Your task to perform on an android device: Go to sound settings Image 0: 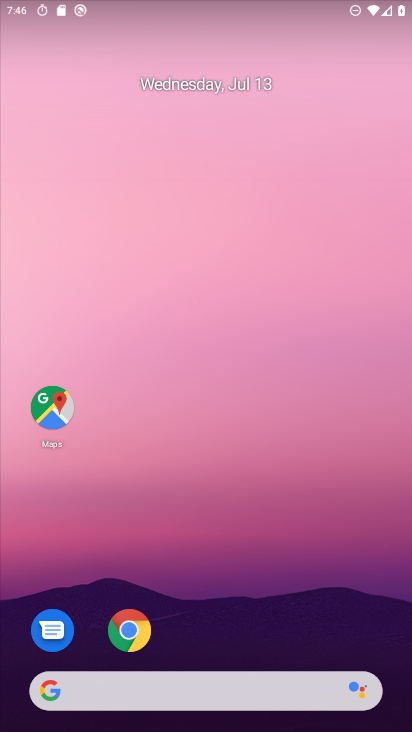
Step 0: drag from (389, 663) to (289, 27)
Your task to perform on an android device: Go to sound settings Image 1: 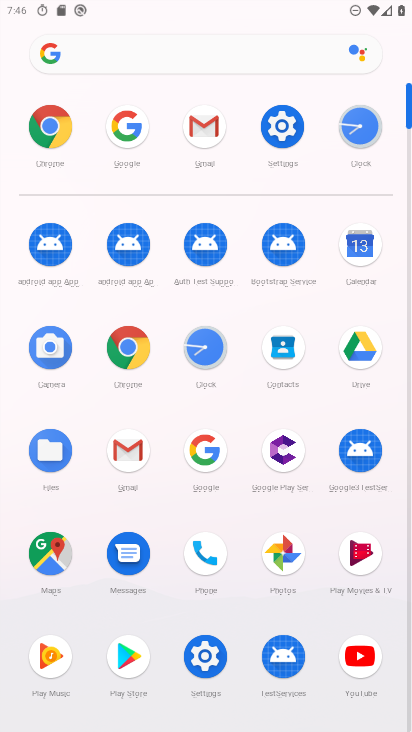
Step 1: click (276, 138)
Your task to perform on an android device: Go to sound settings Image 2: 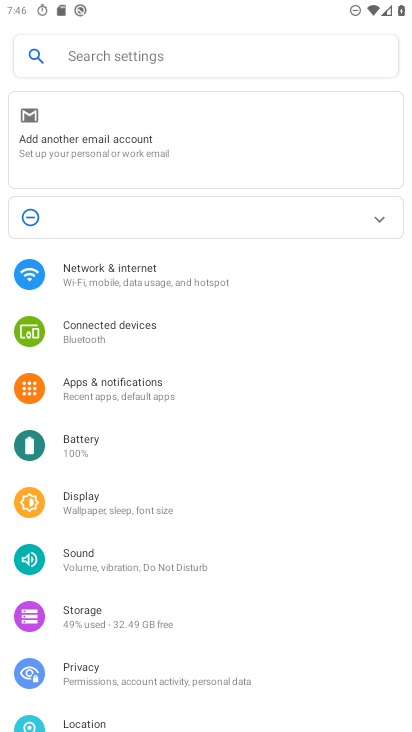
Step 2: click (103, 562)
Your task to perform on an android device: Go to sound settings Image 3: 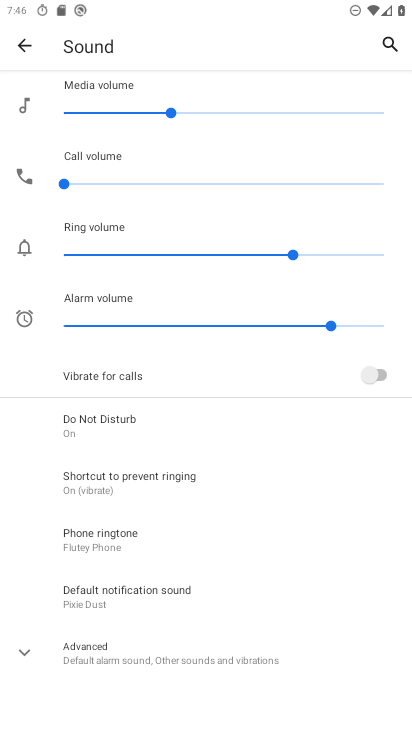
Step 3: task complete